Your task to perform on an android device: turn off data saver in the chrome app Image 0: 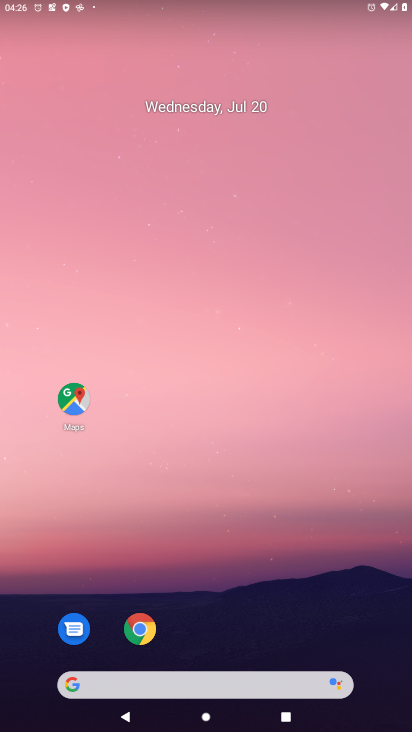
Step 0: click (139, 628)
Your task to perform on an android device: turn off data saver in the chrome app Image 1: 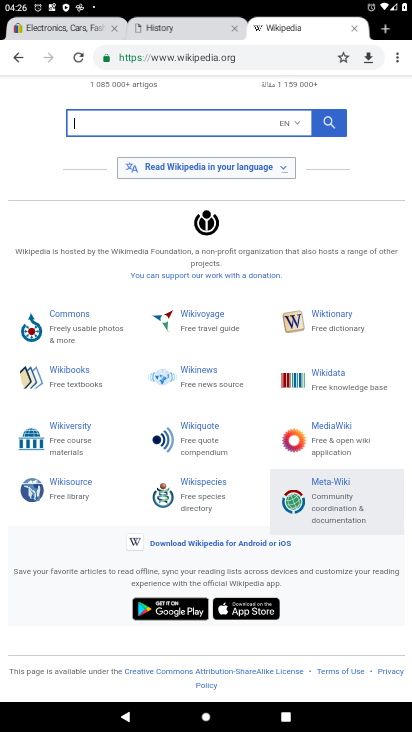
Step 1: click (396, 61)
Your task to perform on an android device: turn off data saver in the chrome app Image 2: 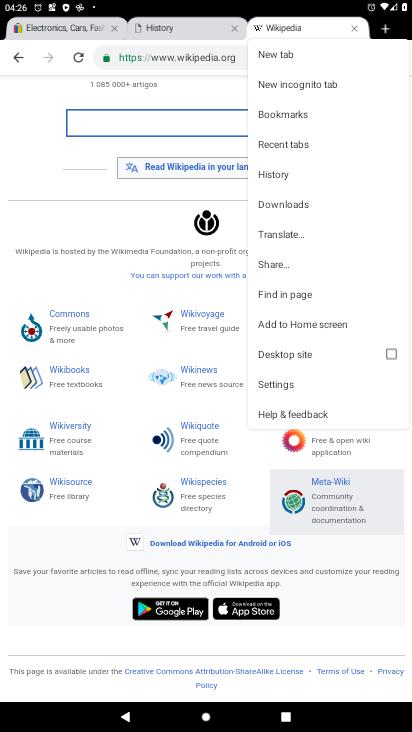
Step 2: click (264, 385)
Your task to perform on an android device: turn off data saver in the chrome app Image 3: 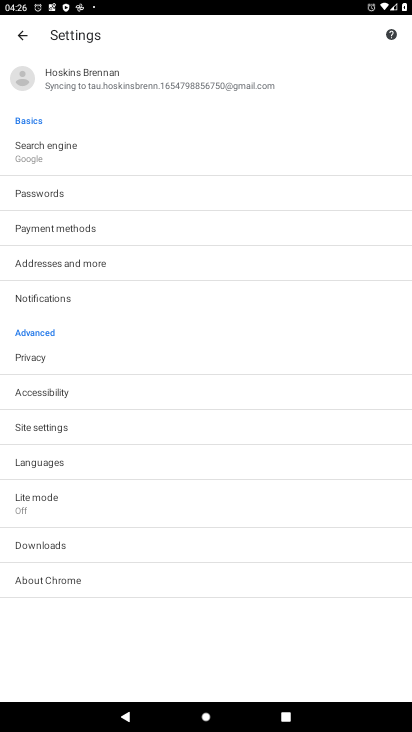
Step 3: click (26, 513)
Your task to perform on an android device: turn off data saver in the chrome app Image 4: 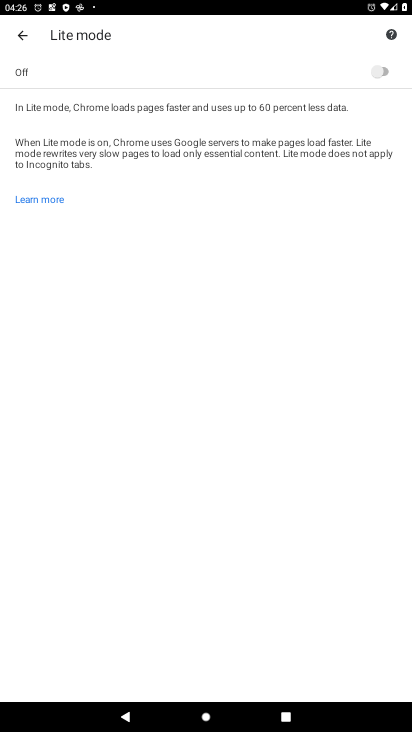
Step 4: task complete